Your task to perform on an android device: find snoozed emails in the gmail app Image 0: 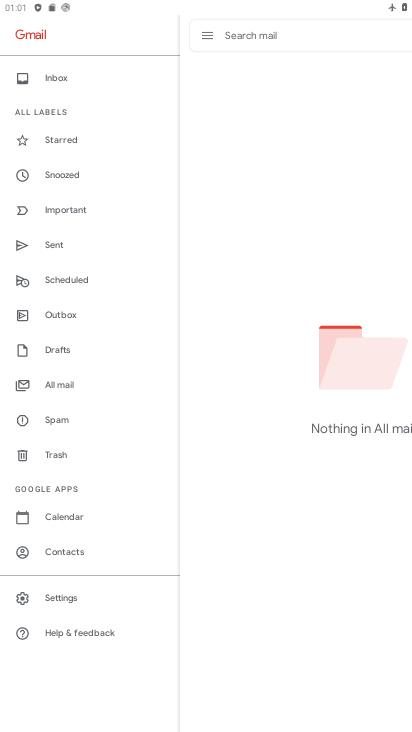
Step 0: click (58, 179)
Your task to perform on an android device: find snoozed emails in the gmail app Image 1: 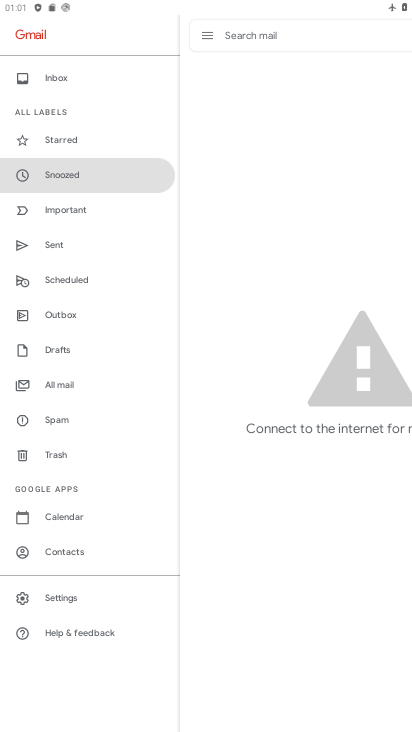
Step 1: task complete